Your task to perform on an android device: see sites visited before in the chrome app Image 0: 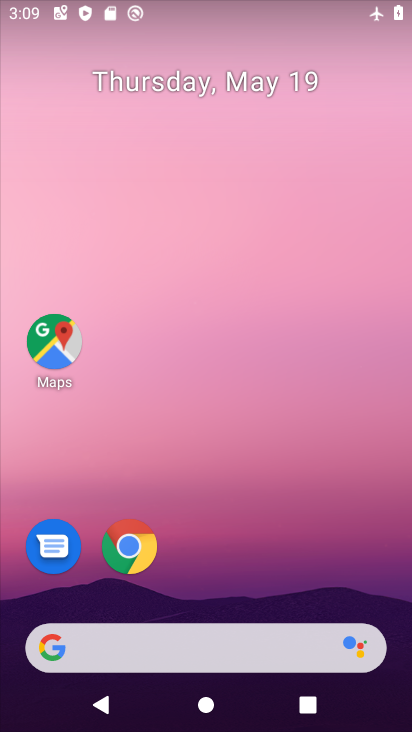
Step 0: click (127, 543)
Your task to perform on an android device: see sites visited before in the chrome app Image 1: 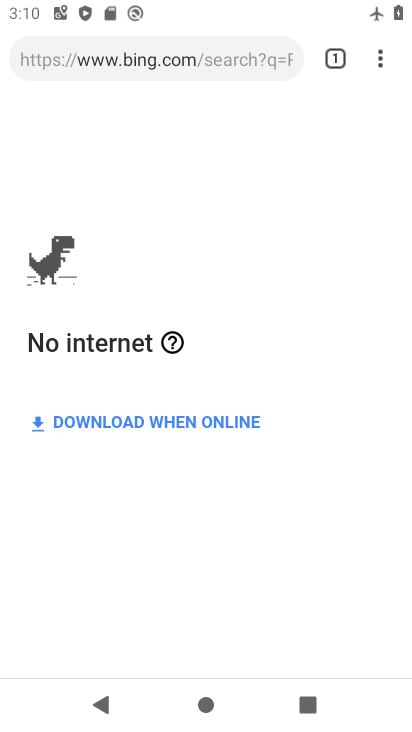
Step 1: click (379, 58)
Your task to perform on an android device: see sites visited before in the chrome app Image 2: 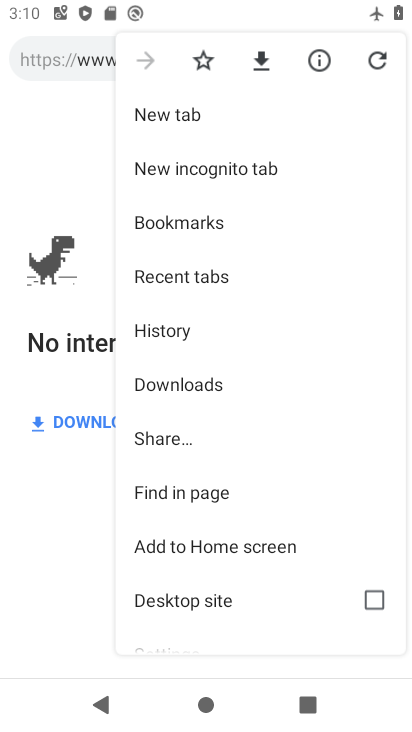
Step 2: click (171, 334)
Your task to perform on an android device: see sites visited before in the chrome app Image 3: 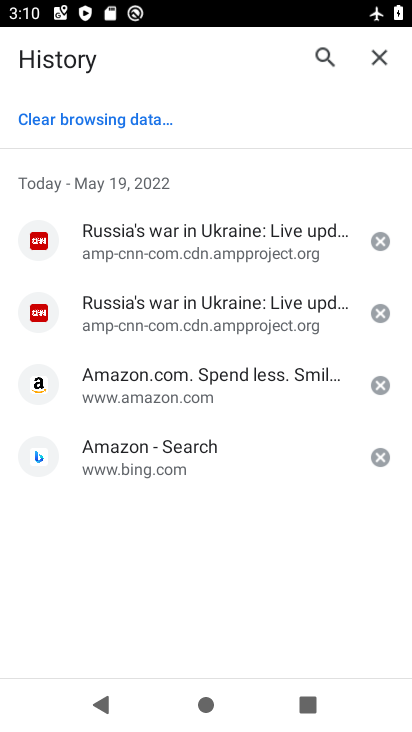
Step 3: task complete